Your task to perform on an android device: Open the web browser Image 0: 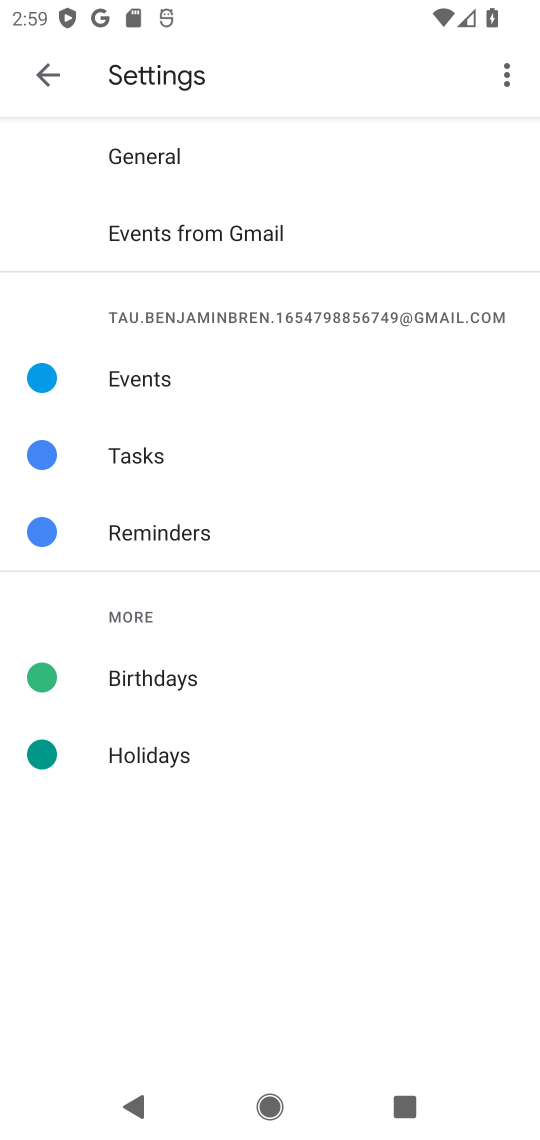
Step 0: press home button
Your task to perform on an android device: Open the web browser Image 1: 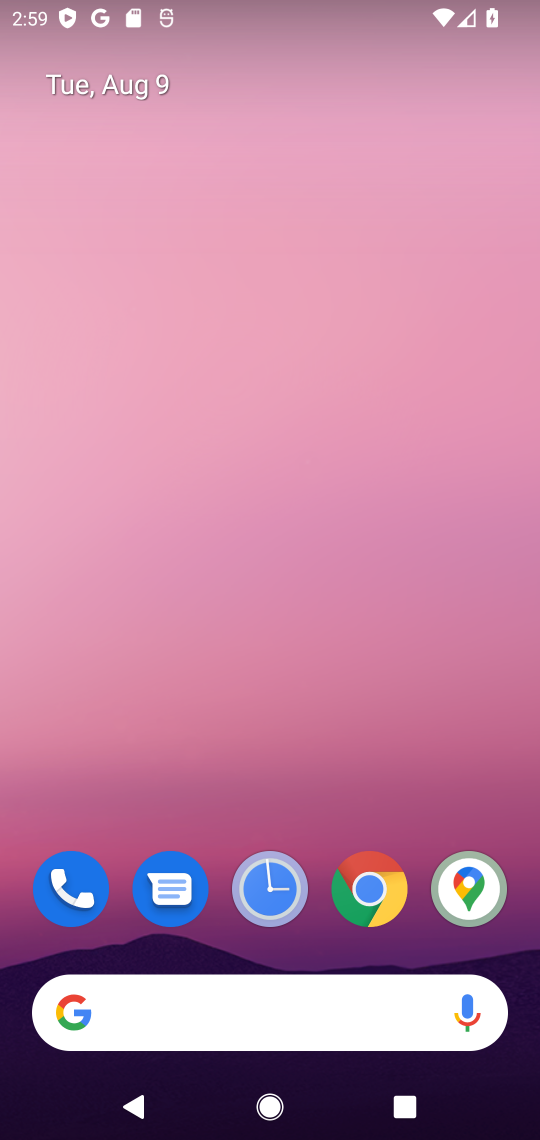
Step 1: click (289, 1023)
Your task to perform on an android device: Open the web browser Image 2: 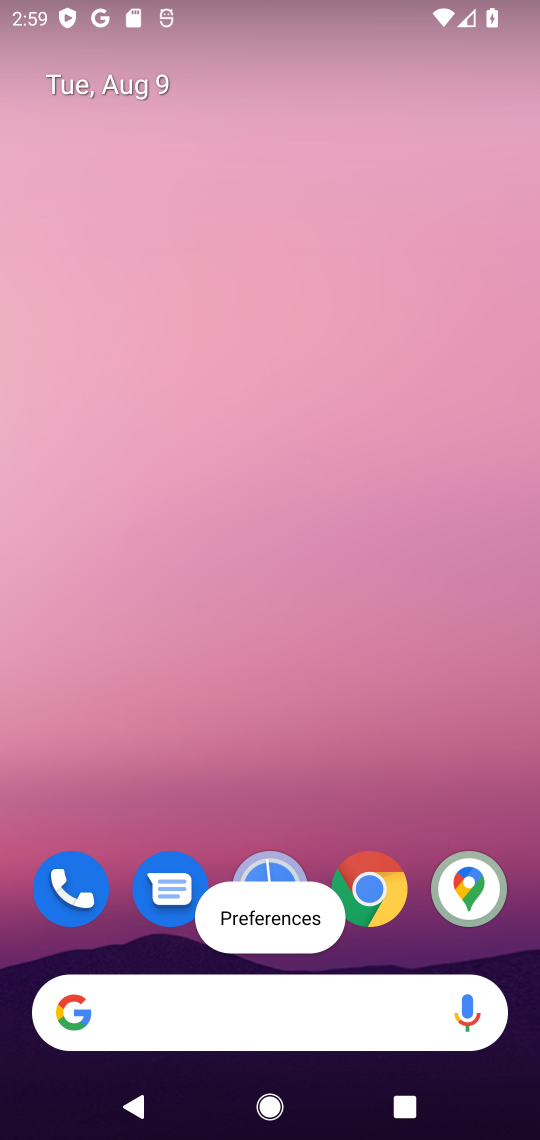
Step 2: click (289, 1025)
Your task to perform on an android device: Open the web browser Image 3: 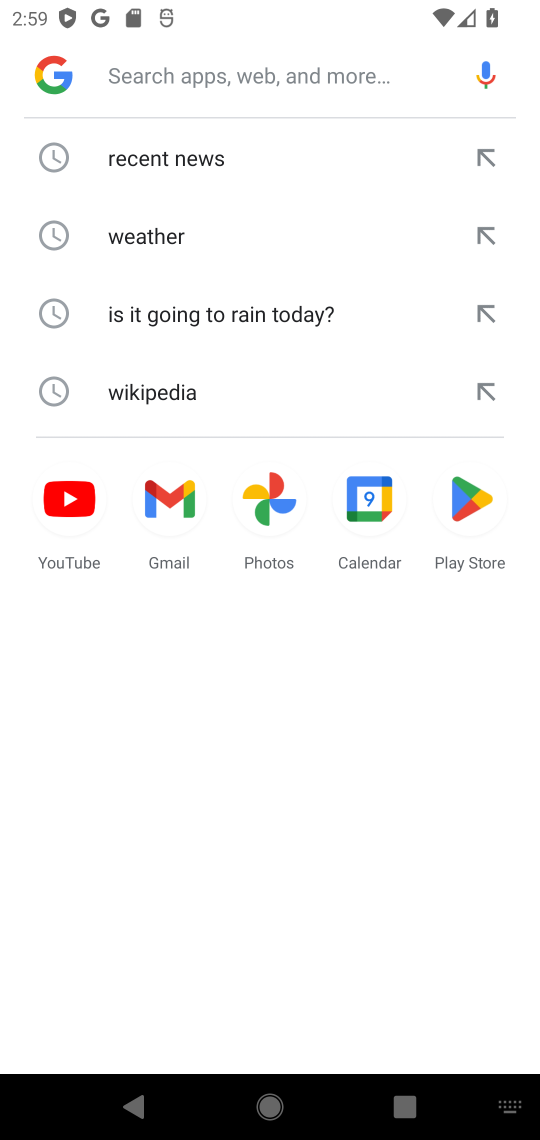
Step 3: task complete